Your task to perform on an android device: Is it going to rain this weekend? Image 0: 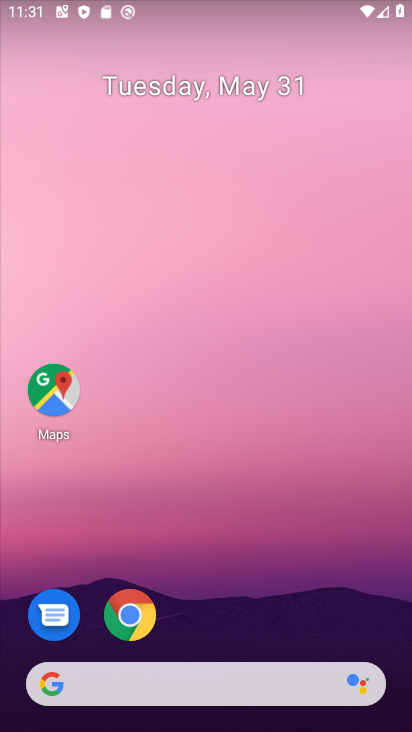
Step 0: task complete